Your task to perform on an android device: Go to network settings Image 0: 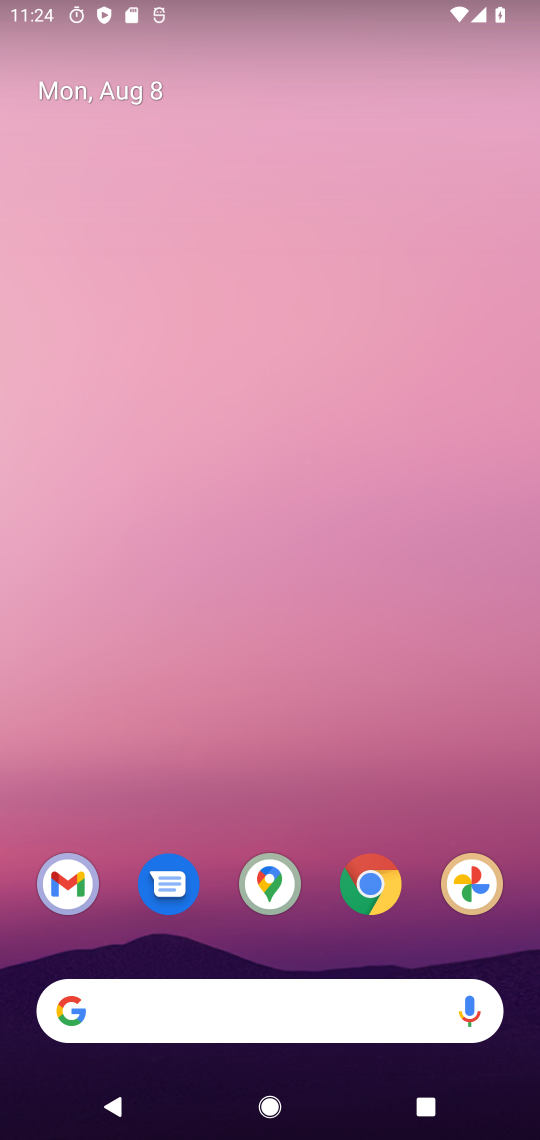
Step 0: drag from (234, 922) to (261, 257)
Your task to perform on an android device: Go to network settings Image 1: 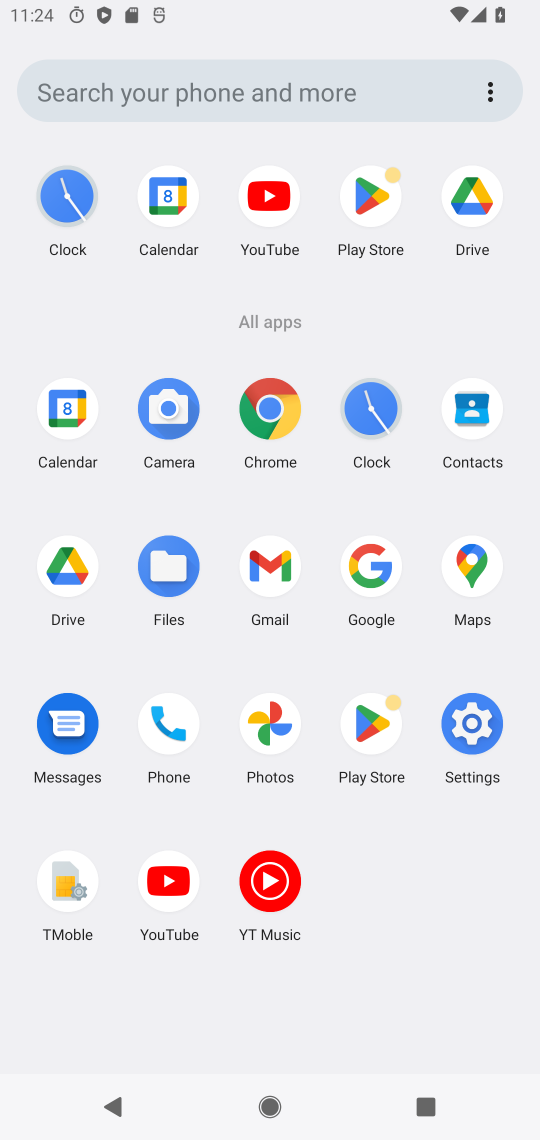
Step 1: click (464, 735)
Your task to perform on an android device: Go to network settings Image 2: 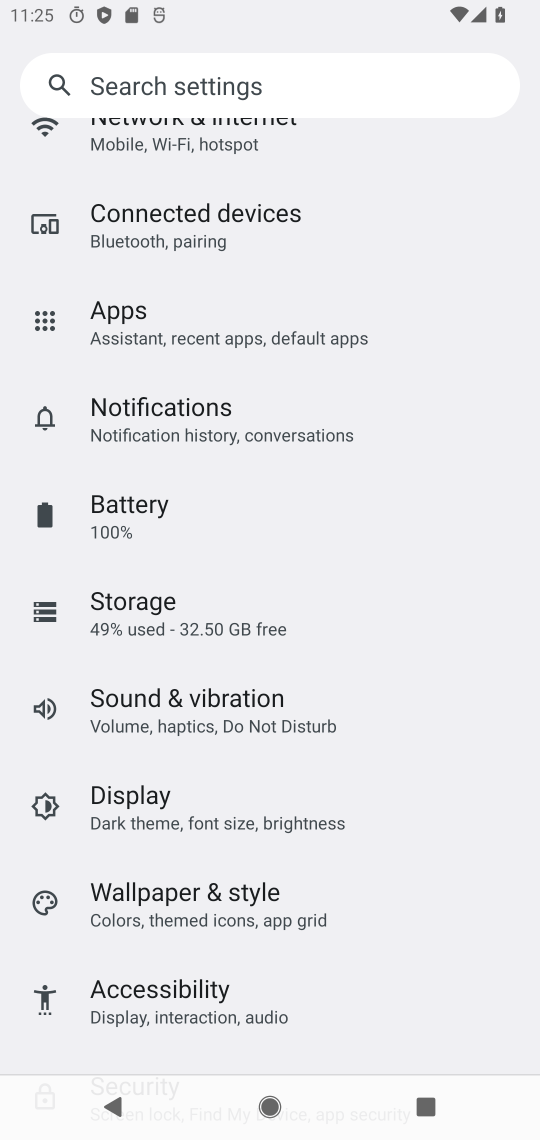
Step 2: drag from (275, 352) to (133, 1046)
Your task to perform on an android device: Go to network settings Image 3: 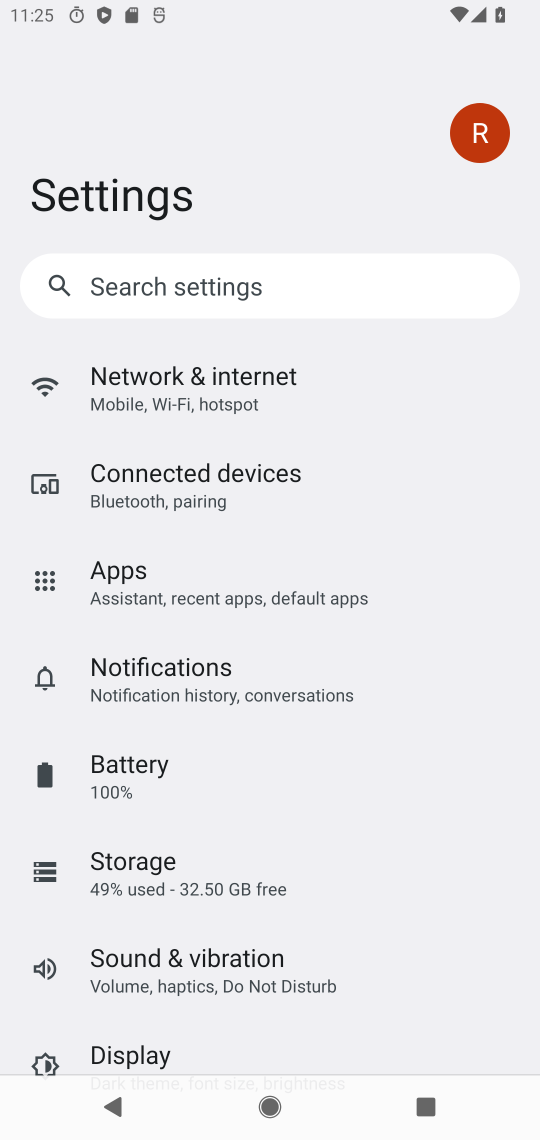
Step 3: click (177, 403)
Your task to perform on an android device: Go to network settings Image 4: 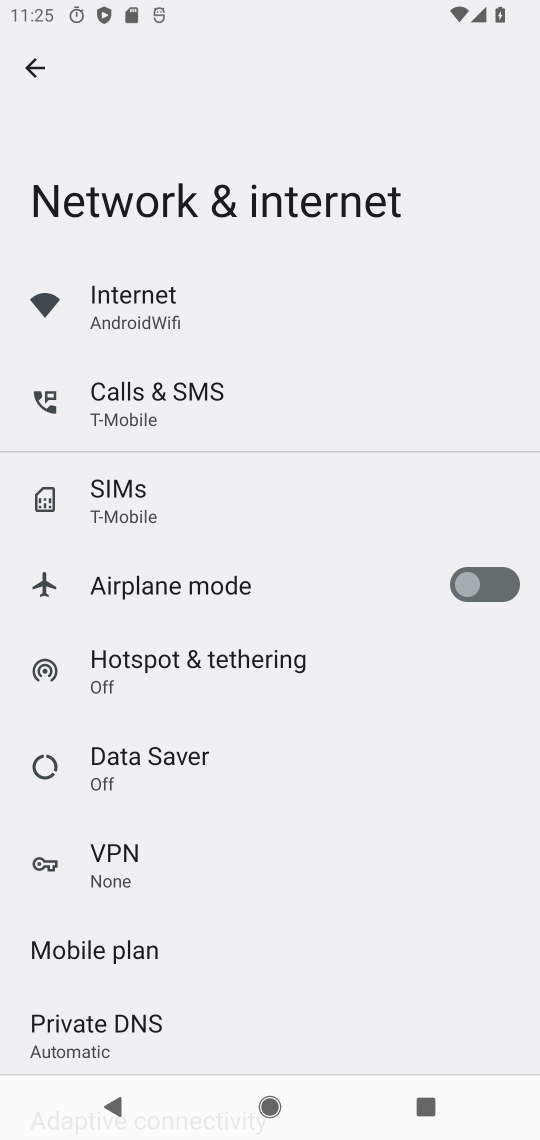
Step 4: task complete